Your task to perform on an android device: turn off data saver in the chrome app Image 0: 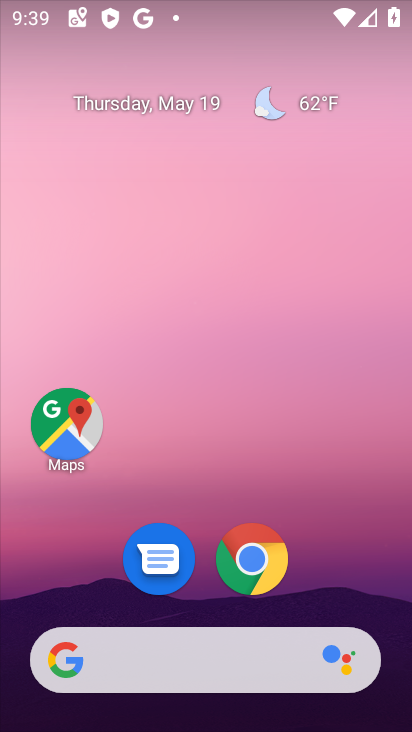
Step 0: click (256, 557)
Your task to perform on an android device: turn off data saver in the chrome app Image 1: 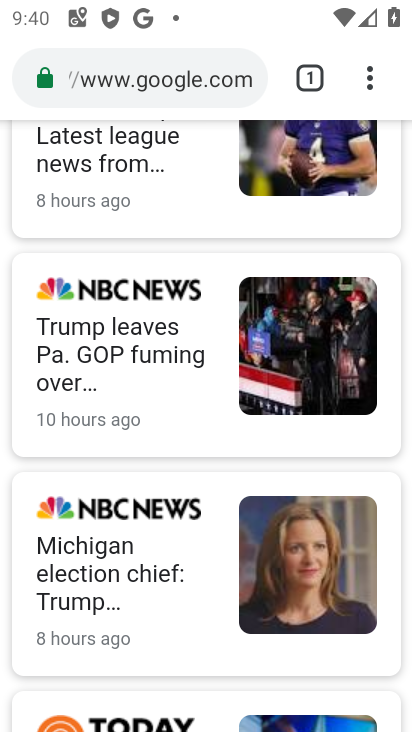
Step 1: click (367, 73)
Your task to perform on an android device: turn off data saver in the chrome app Image 2: 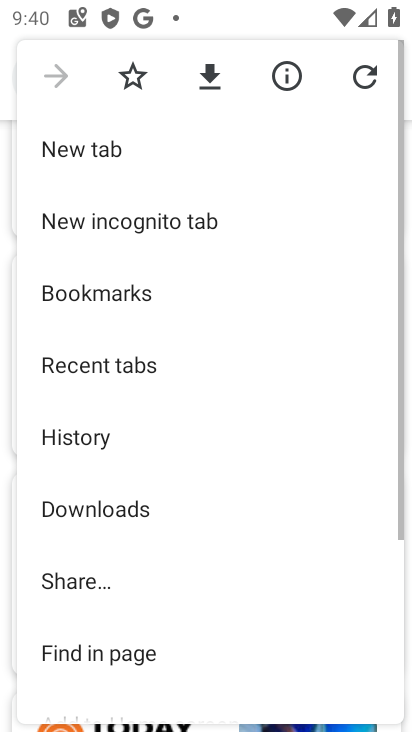
Step 2: drag from (147, 664) to (208, 134)
Your task to perform on an android device: turn off data saver in the chrome app Image 3: 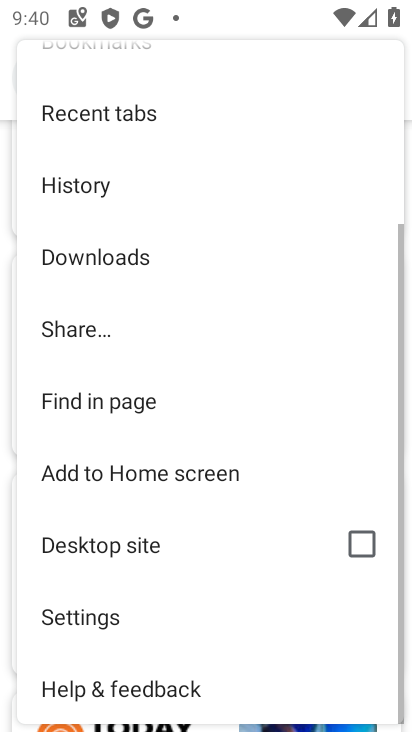
Step 3: drag from (165, 637) to (237, 172)
Your task to perform on an android device: turn off data saver in the chrome app Image 4: 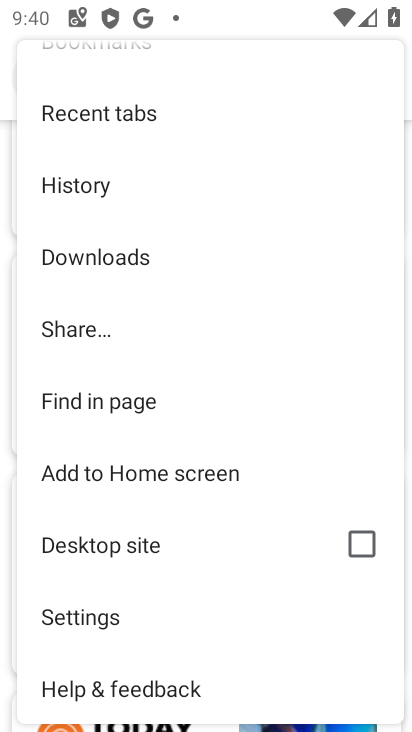
Step 4: click (94, 628)
Your task to perform on an android device: turn off data saver in the chrome app Image 5: 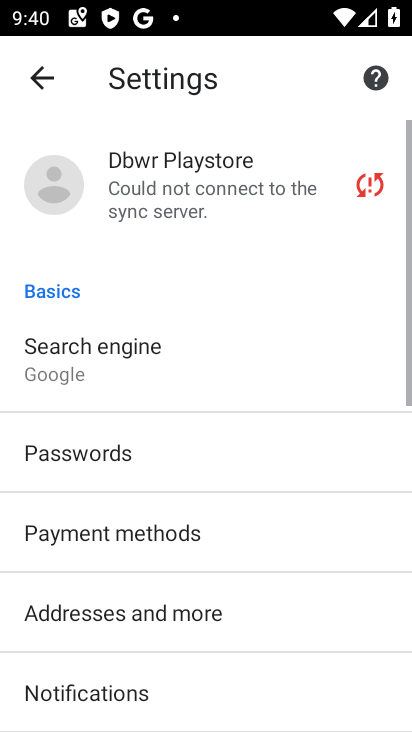
Step 5: drag from (210, 633) to (289, 68)
Your task to perform on an android device: turn off data saver in the chrome app Image 6: 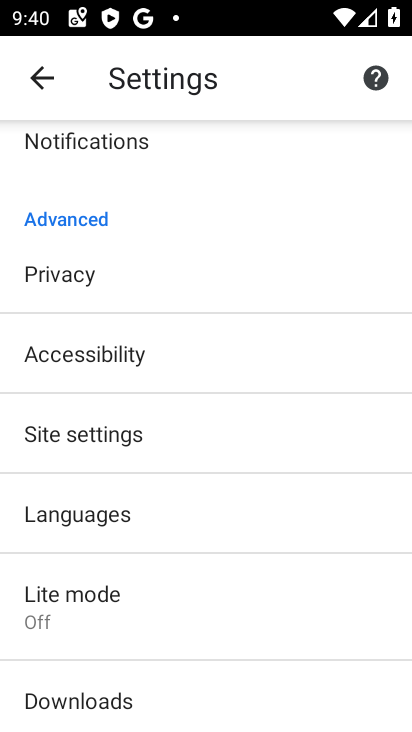
Step 6: drag from (151, 608) to (227, 248)
Your task to perform on an android device: turn off data saver in the chrome app Image 7: 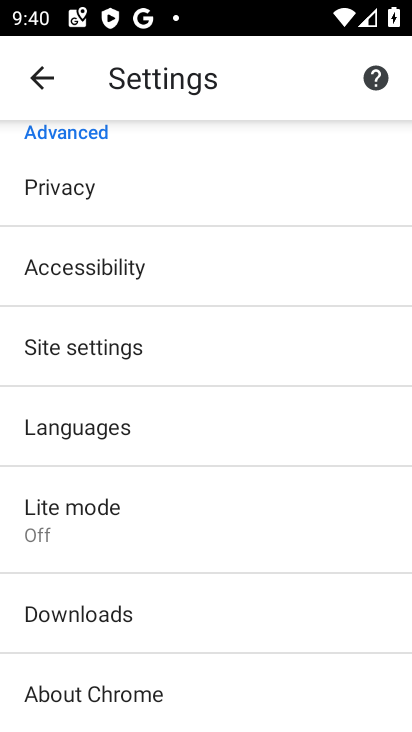
Step 7: click (46, 511)
Your task to perform on an android device: turn off data saver in the chrome app Image 8: 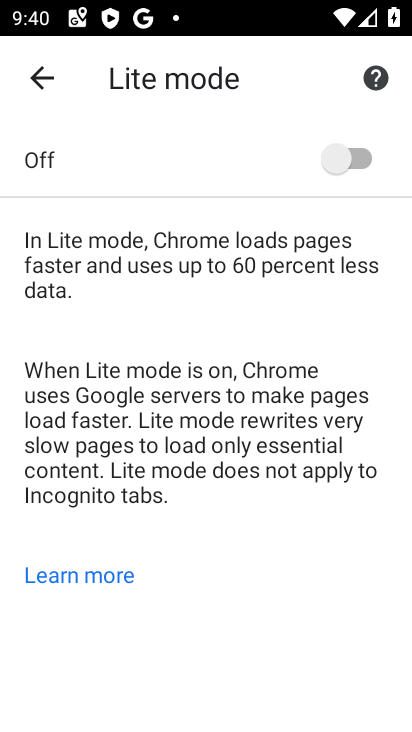
Step 8: task complete